Your task to perform on an android device: turn off priority inbox in the gmail app Image 0: 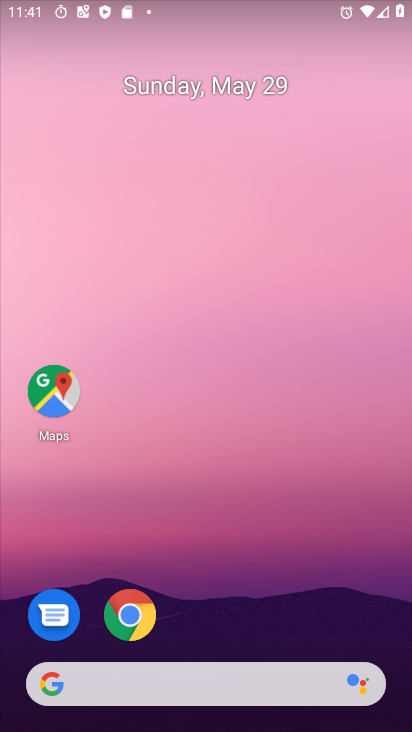
Step 0: drag from (231, 597) to (267, 14)
Your task to perform on an android device: turn off priority inbox in the gmail app Image 1: 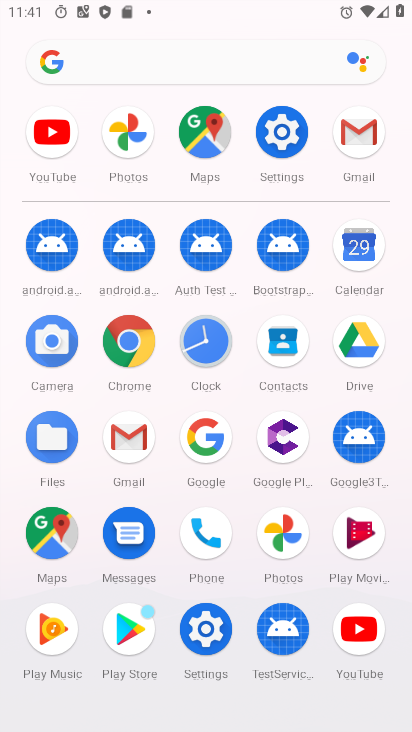
Step 1: click (124, 448)
Your task to perform on an android device: turn off priority inbox in the gmail app Image 2: 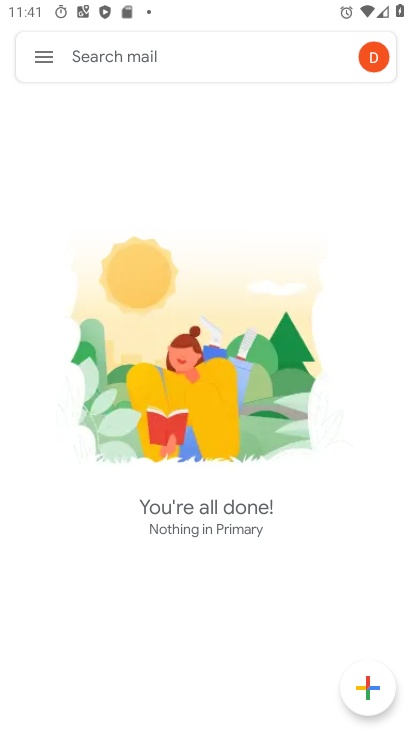
Step 2: click (50, 51)
Your task to perform on an android device: turn off priority inbox in the gmail app Image 3: 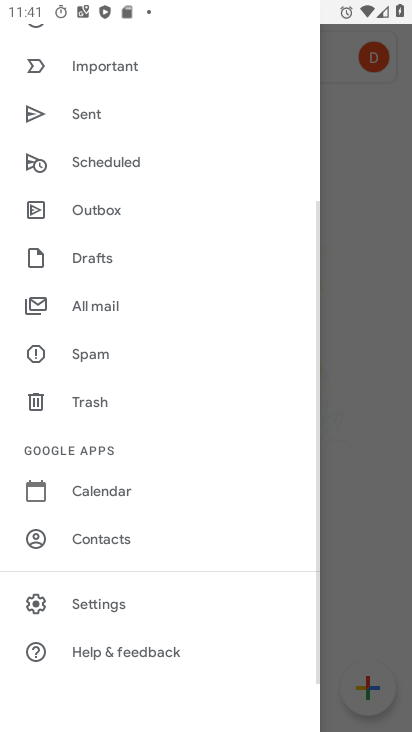
Step 3: click (122, 598)
Your task to perform on an android device: turn off priority inbox in the gmail app Image 4: 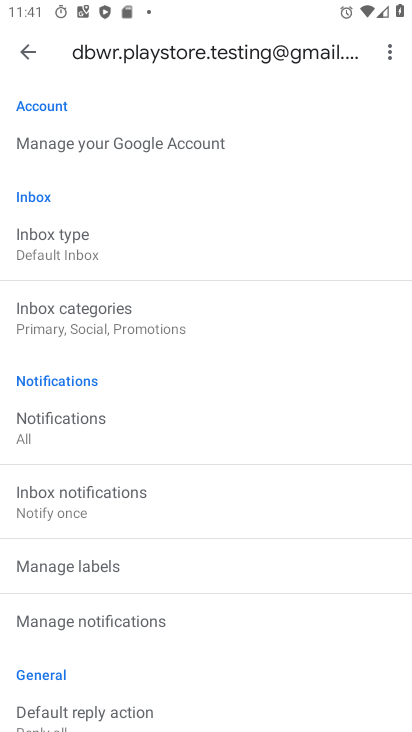
Step 4: click (91, 256)
Your task to perform on an android device: turn off priority inbox in the gmail app Image 5: 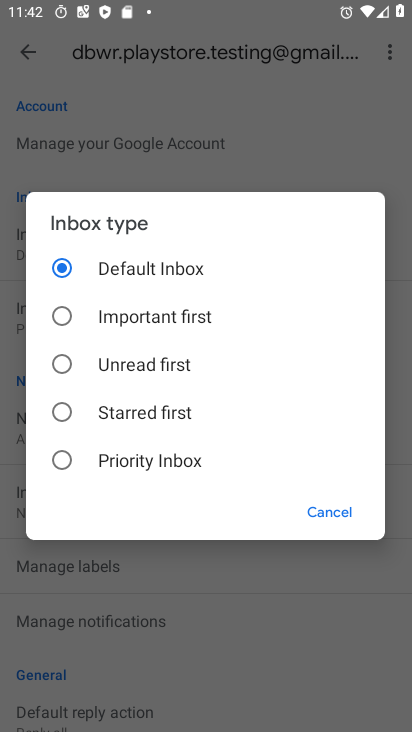
Step 5: task complete